Your task to perform on an android device: Go to battery settings Image 0: 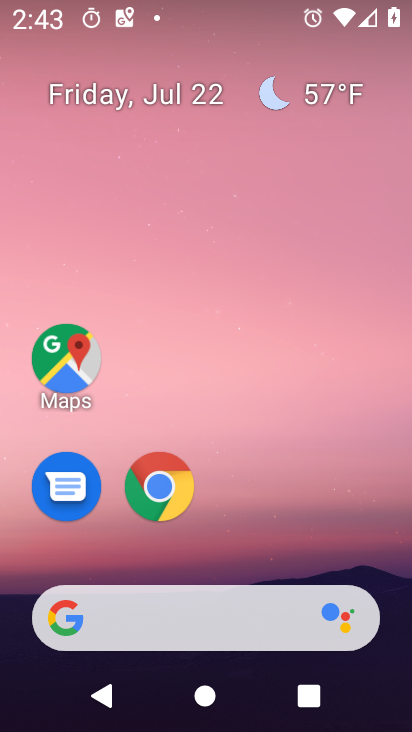
Step 0: press home button
Your task to perform on an android device: Go to battery settings Image 1: 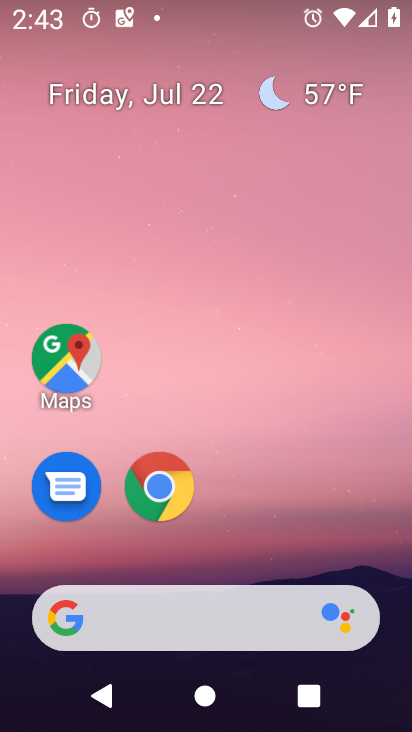
Step 1: drag from (316, 495) to (330, 81)
Your task to perform on an android device: Go to battery settings Image 2: 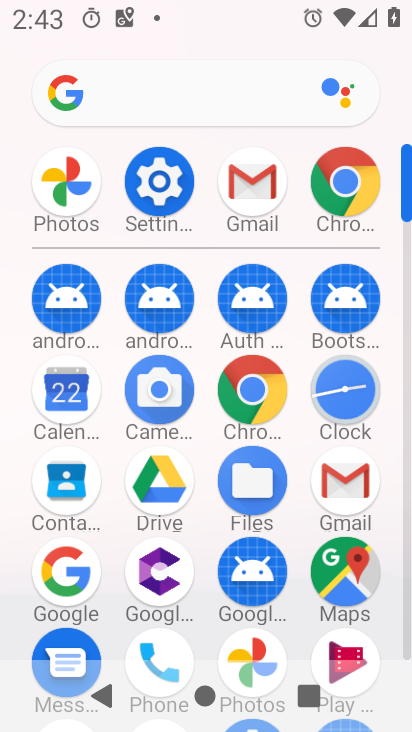
Step 2: click (162, 189)
Your task to perform on an android device: Go to battery settings Image 3: 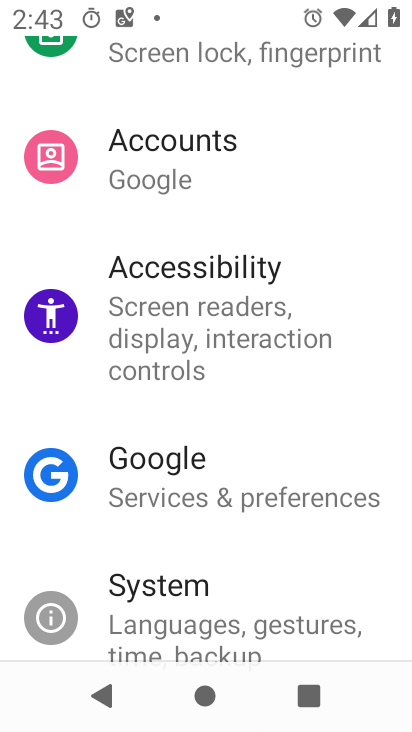
Step 3: drag from (348, 529) to (351, 394)
Your task to perform on an android device: Go to battery settings Image 4: 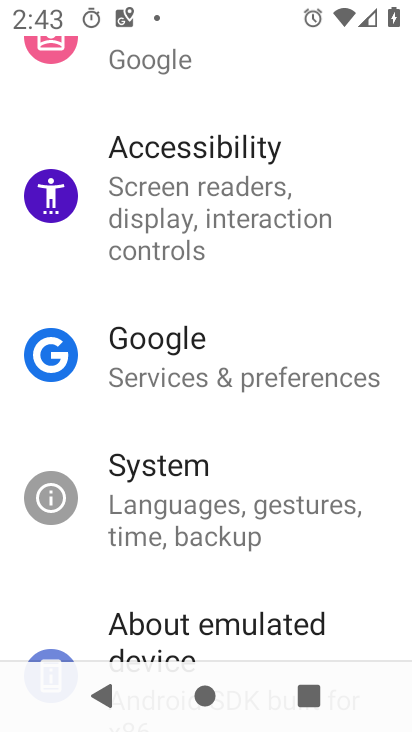
Step 4: drag from (342, 543) to (352, 366)
Your task to perform on an android device: Go to battery settings Image 5: 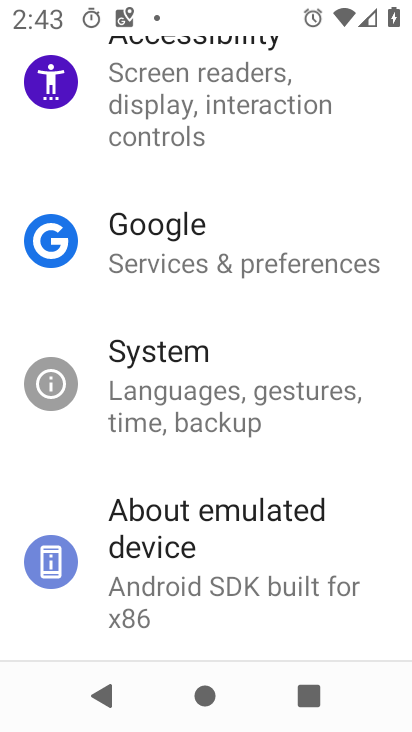
Step 5: drag from (349, 494) to (349, 406)
Your task to perform on an android device: Go to battery settings Image 6: 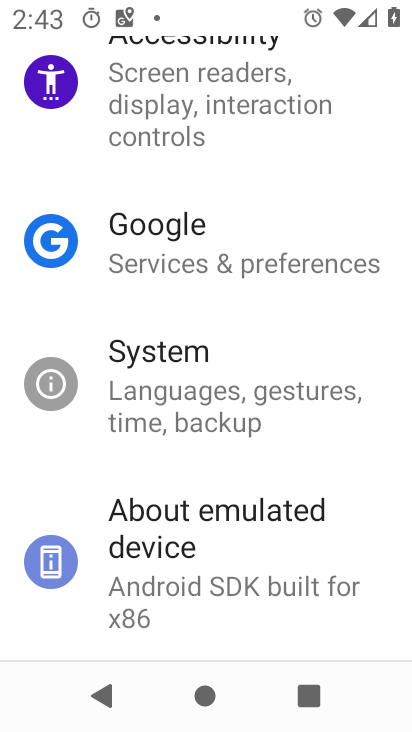
Step 6: drag from (357, 498) to (362, 358)
Your task to perform on an android device: Go to battery settings Image 7: 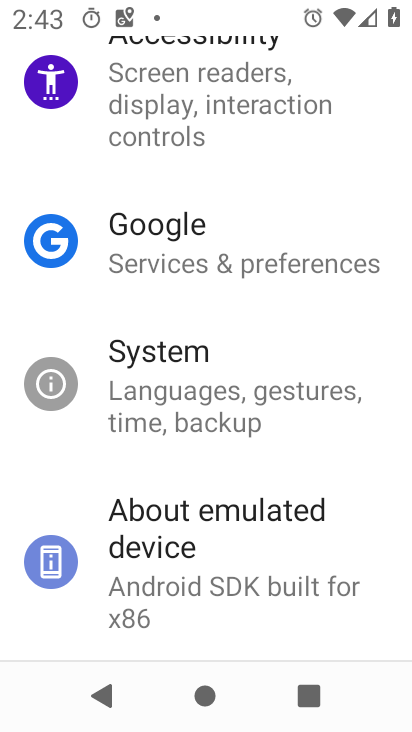
Step 7: drag from (338, 163) to (339, 387)
Your task to perform on an android device: Go to battery settings Image 8: 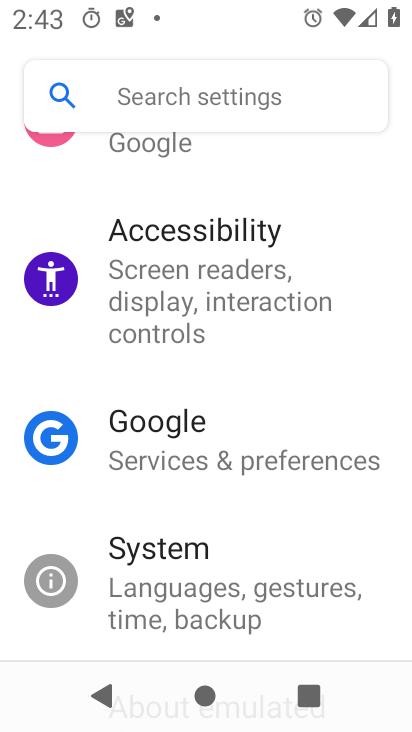
Step 8: drag from (342, 216) to (350, 358)
Your task to perform on an android device: Go to battery settings Image 9: 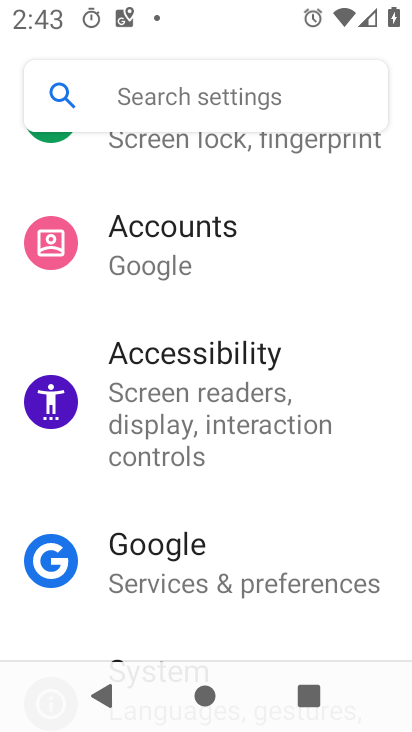
Step 9: drag from (347, 208) to (348, 306)
Your task to perform on an android device: Go to battery settings Image 10: 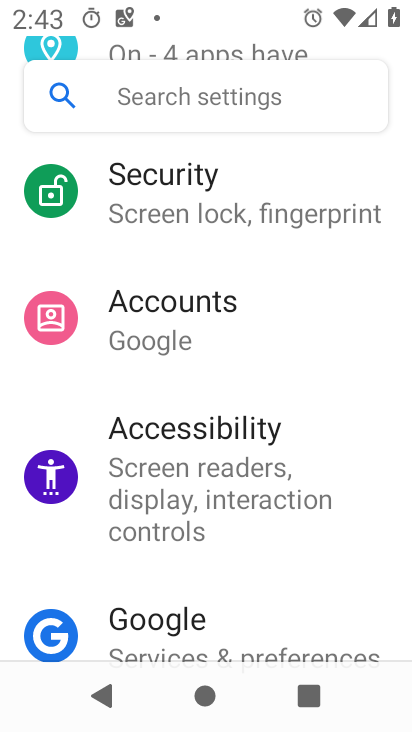
Step 10: drag from (331, 191) to (337, 278)
Your task to perform on an android device: Go to battery settings Image 11: 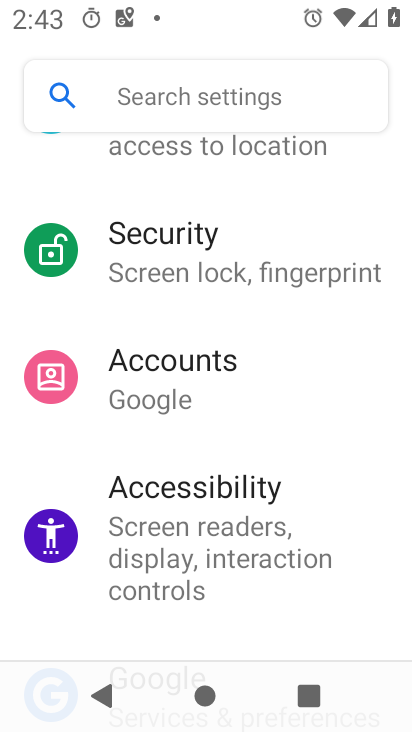
Step 11: drag from (341, 162) to (345, 293)
Your task to perform on an android device: Go to battery settings Image 12: 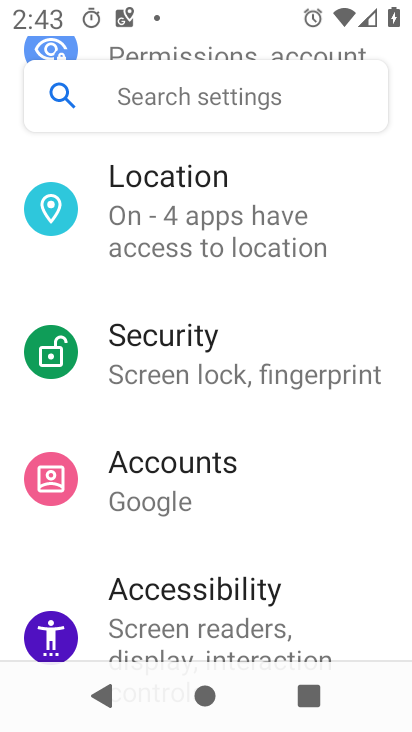
Step 12: drag from (344, 175) to (360, 325)
Your task to perform on an android device: Go to battery settings Image 13: 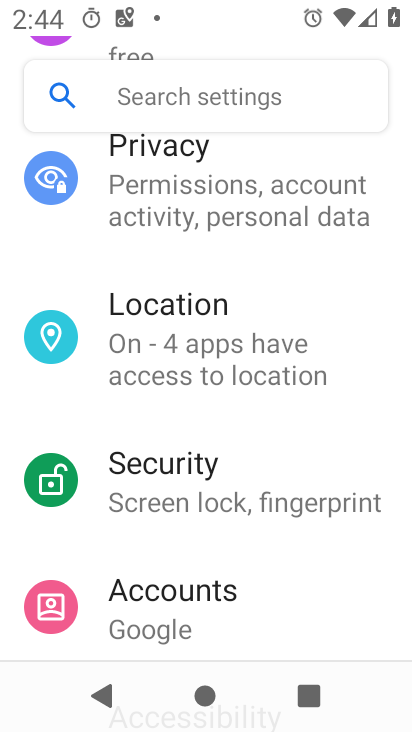
Step 13: drag from (355, 158) to (348, 314)
Your task to perform on an android device: Go to battery settings Image 14: 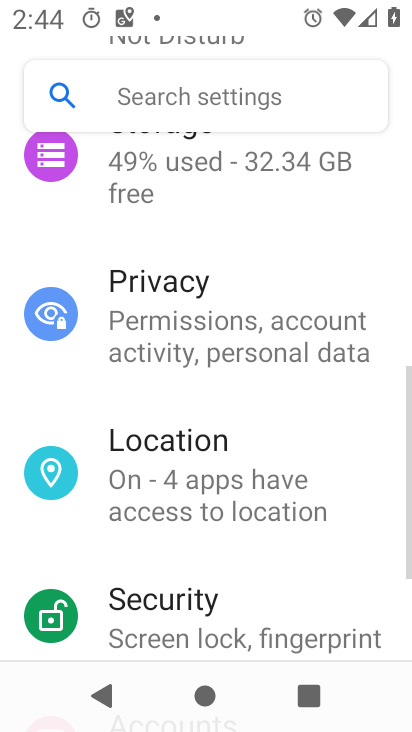
Step 14: drag from (326, 184) to (325, 330)
Your task to perform on an android device: Go to battery settings Image 15: 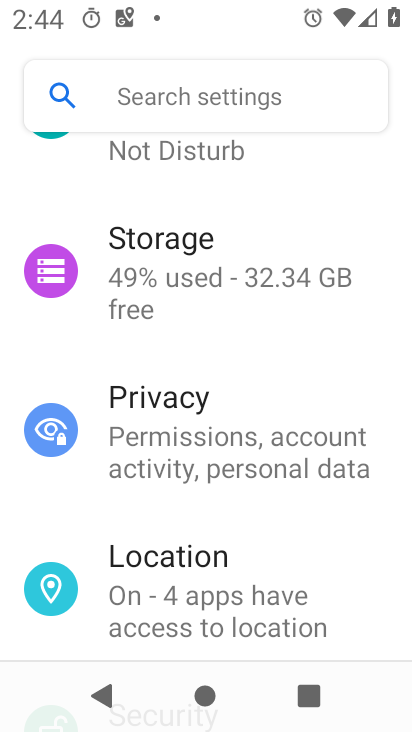
Step 15: drag from (309, 169) to (309, 321)
Your task to perform on an android device: Go to battery settings Image 16: 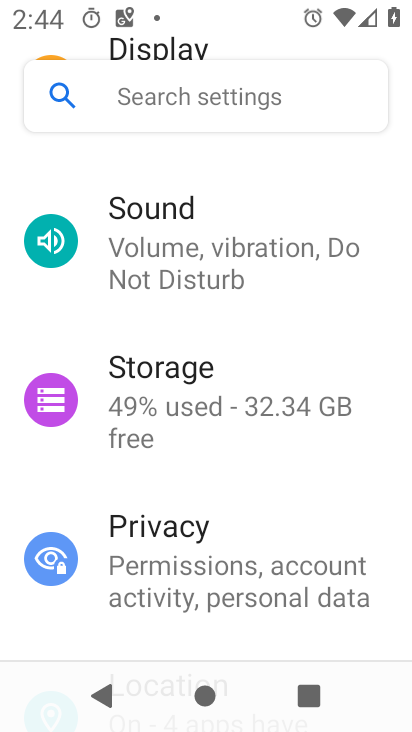
Step 16: drag from (299, 155) to (299, 281)
Your task to perform on an android device: Go to battery settings Image 17: 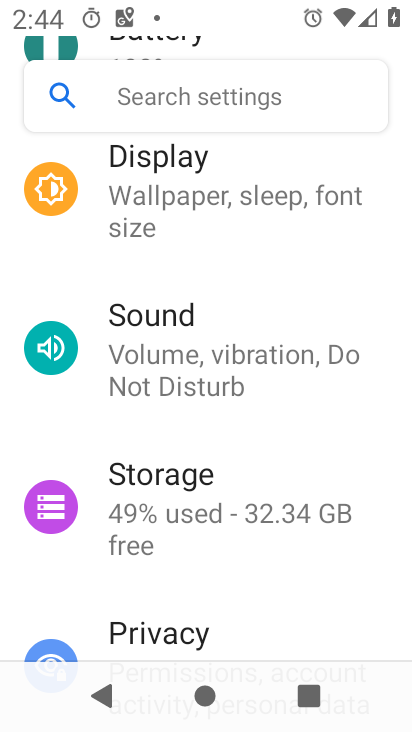
Step 17: drag from (278, 170) to (273, 320)
Your task to perform on an android device: Go to battery settings Image 18: 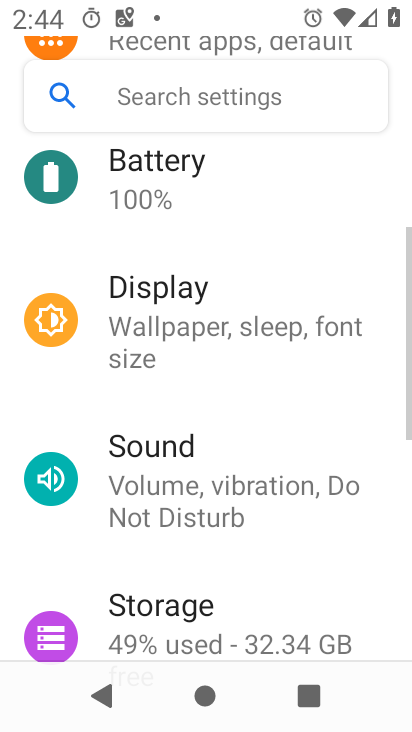
Step 18: click (230, 176)
Your task to perform on an android device: Go to battery settings Image 19: 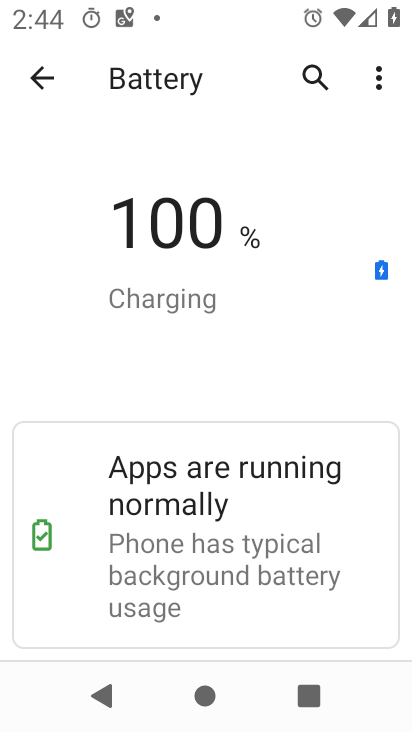
Step 19: task complete